Your task to perform on an android device: refresh tabs in the chrome app Image 0: 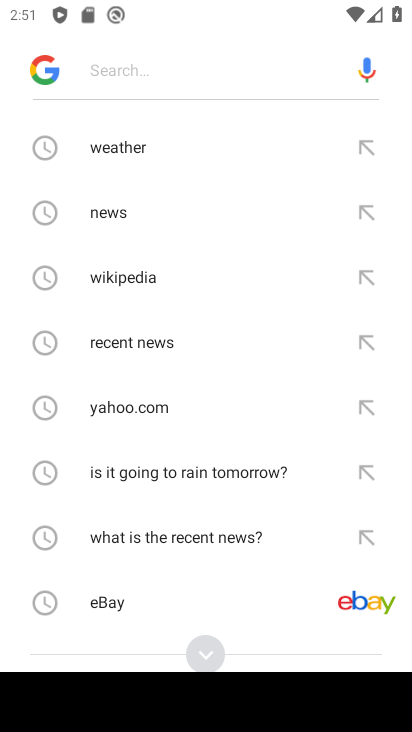
Step 0: press home button
Your task to perform on an android device: refresh tabs in the chrome app Image 1: 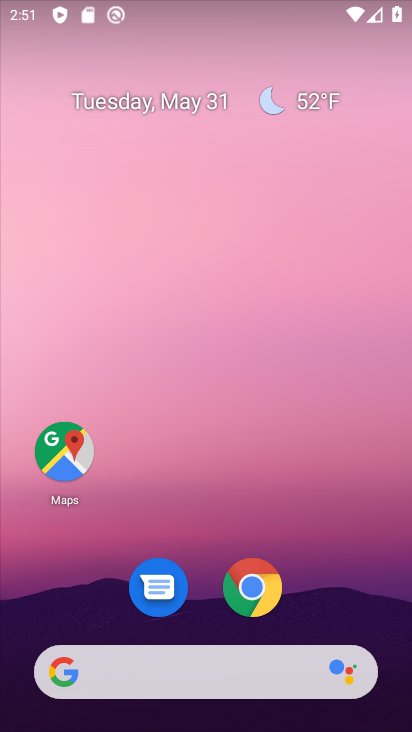
Step 1: click (267, 590)
Your task to perform on an android device: refresh tabs in the chrome app Image 2: 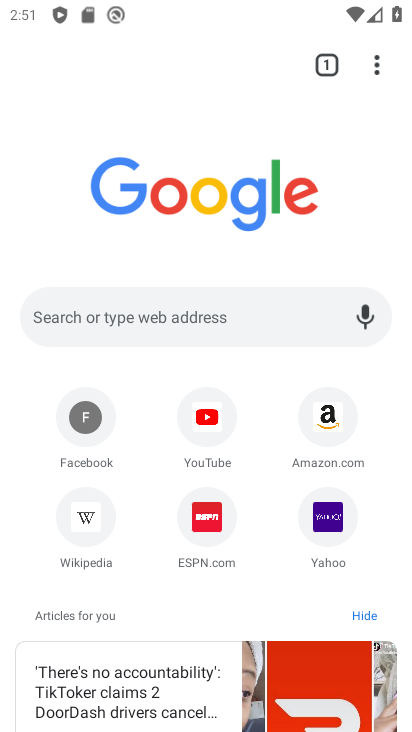
Step 2: click (381, 65)
Your task to perform on an android device: refresh tabs in the chrome app Image 3: 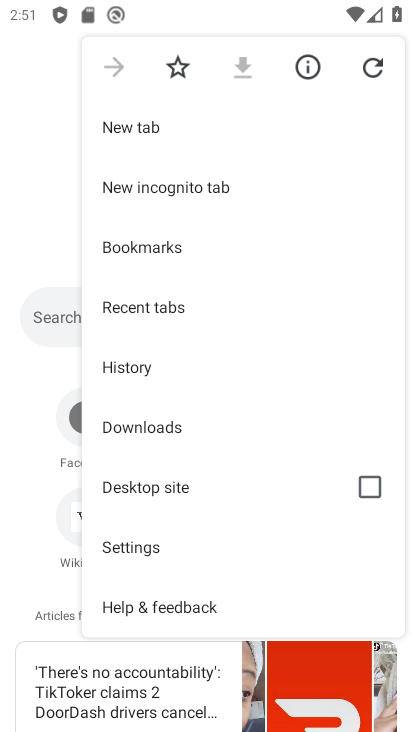
Step 3: click (381, 65)
Your task to perform on an android device: refresh tabs in the chrome app Image 4: 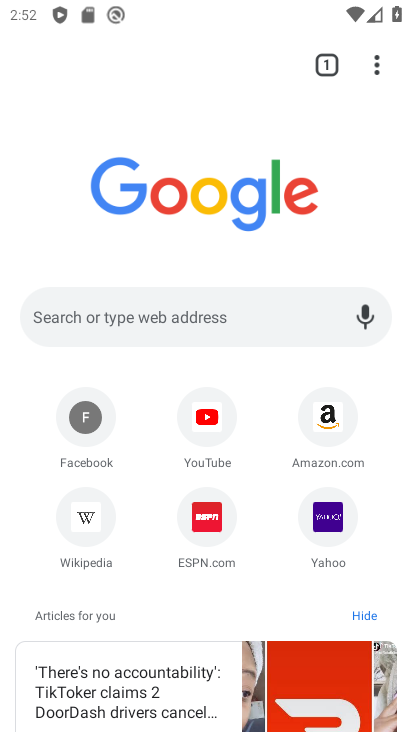
Step 4: task complete